Your task to perform on an android device: Search for dell alienware on target.com, select the first entry, add it to the cart, then select checkout. Image 0: 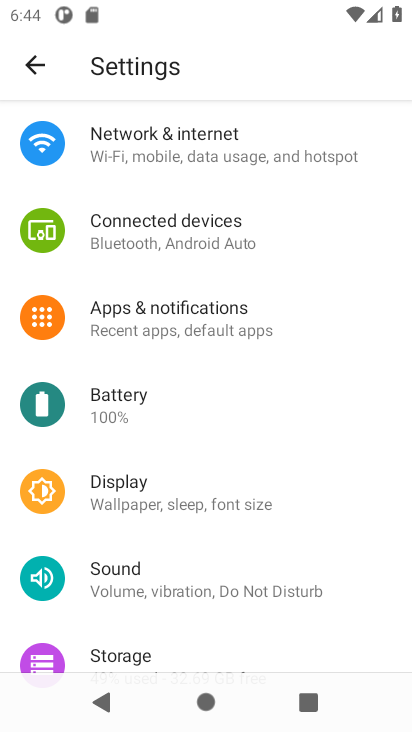
Step 0: press home button
Your task to perform on an android device: Search for dell alienware on target.com, select the first entry, add it to the cart, then select checkout. Image 1: 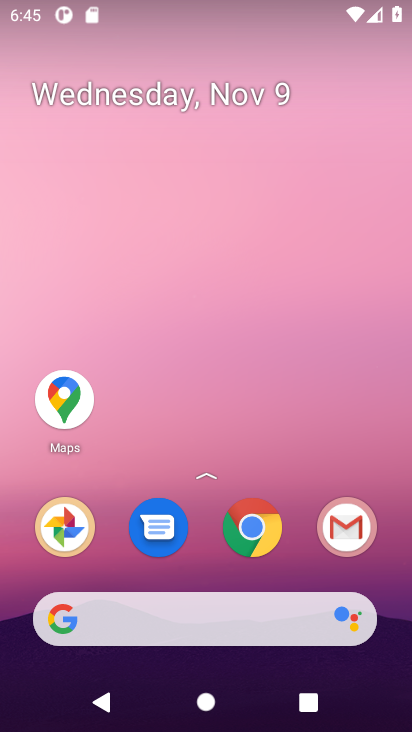
Step 1: click (250, 518)
Your task to perform on an android device: Search for dell alienware on target.com, select the first entry, add it to the cart, then select checkout. Image 2: 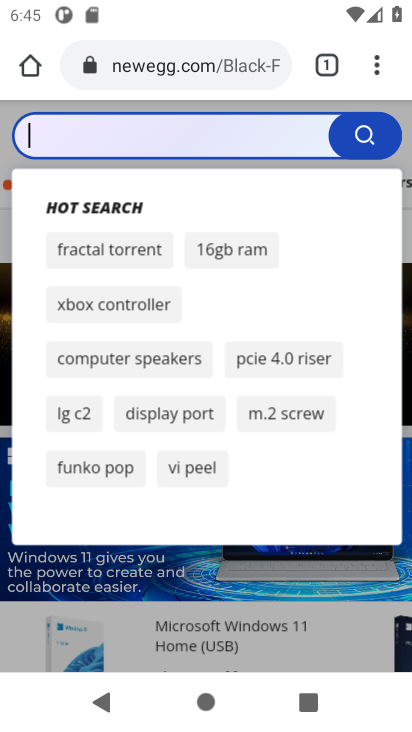
Step 2: click (155, 63)
Your task to perform on an android device: Search for dell alienware on target.com, select the first entry, add it to the cart, then select checkout. Image 3: 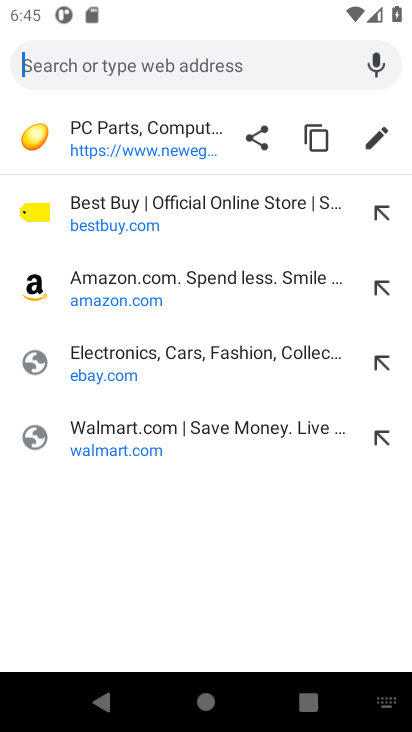
Step 3: type "target"
Your task to perform on an android device: Search for dell alienware on target.com, select the first entry, add it to the cart, then select checkout. Image 4: 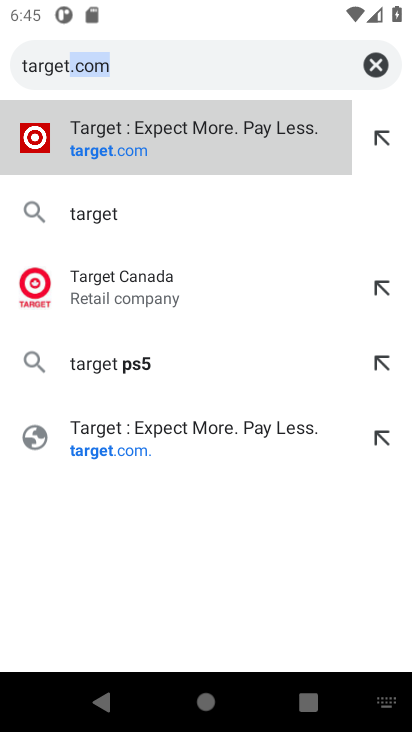
Step 4: click (82, 156)
Your task to perform on an android device: Search for dell alienware on target.com, select the first entry, add it to the cart, then select checkout. Image 5: 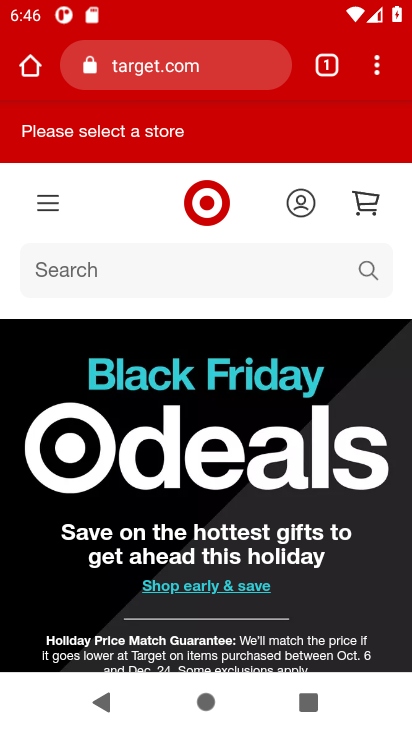
Step 5: click (96, 267)
Your task to perform on an android device: Search for dell alienware on target.com, select the first entry, add it to the cart, then select checkout. Image 6: 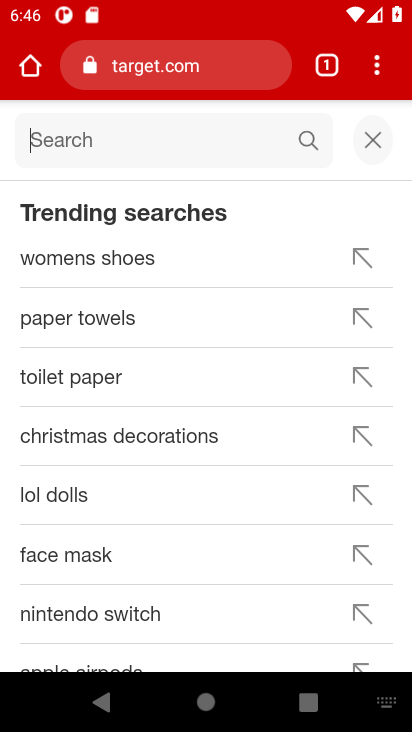
Step 6: type "dell alienware"
Your task to perform on an android device: Search for dell alienware on target.com, select the first entry, add it to the cart, then select checkout. Image 7: 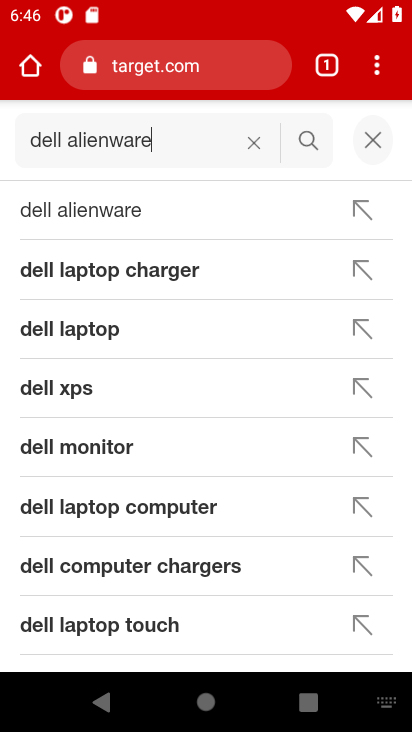
Step 7: click (119, 223)
Your task to perform on an android device: Search for dell alienware on target.com, select the first entry, add it to the cart, then select checkout. Image 8: 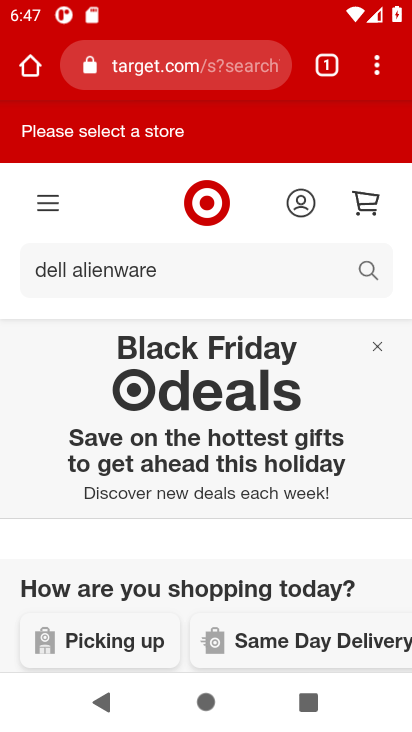
Step 8: click (370, 270)
Your task to perform on an android device: Search for dell alienware on target.com, select the first entry, add it to the cart, then select checkout. Image 9: 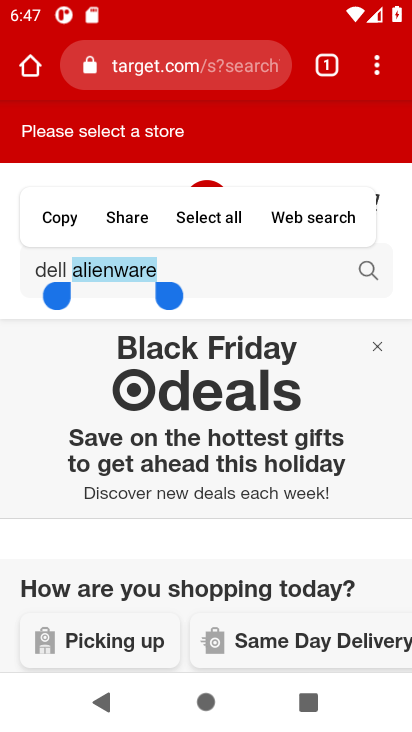
Step 9: click (367, 273)
Your task to perform on an android device: Search for dell alienware on target.com, select the first entry, add it to the cart, then select checkout. Image 10: 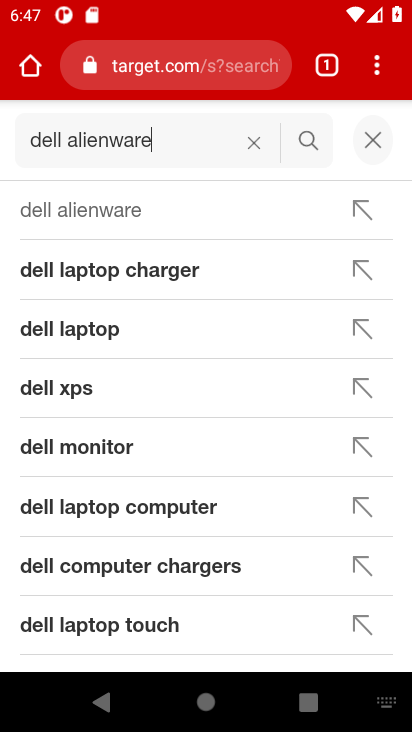
Step 10: click (70, 220)
Your task to perform on an android device: Search for dell alienware on target.com, select the first entry, add it to the cart, then select checkout. Image 11: 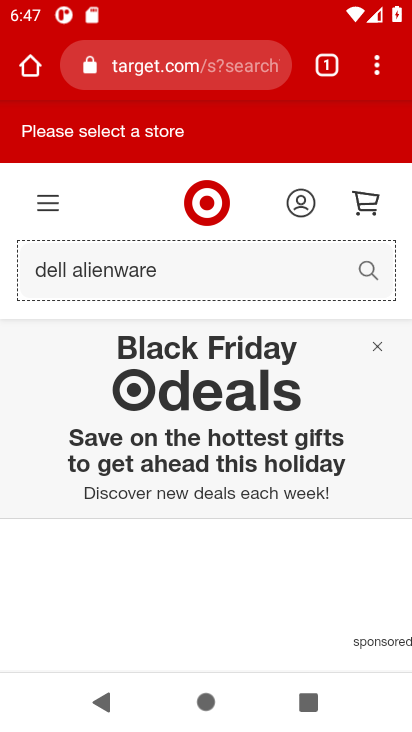
Step 11: drag from (224, 568) to (207, 310)
Your task to perform on an android device: Search for dell alienware on target.com, select the first entry, add it to the cart, then select checkout. Image 12: 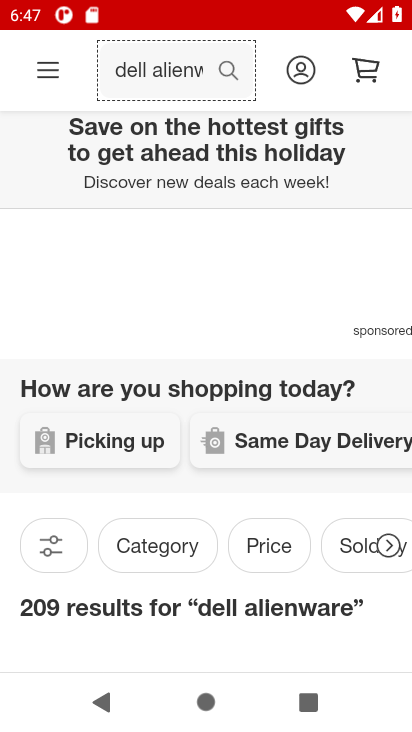
Step 12: drag from (219, 615) to (197, 176)
Your task to perform on an android device: Search for dell alienware on target.com, select the first entry, add it to the cart, then select checkout. Image 13: 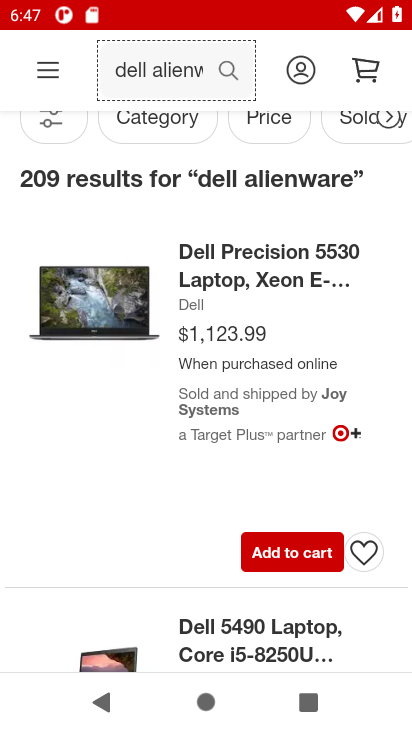
Step 13: drag from (174, 599) to (160, 185)
Your task to perform on an android device: Search for dell alienware on target.com, select the first entry, add it to the cart, then select checkout. Image 14: 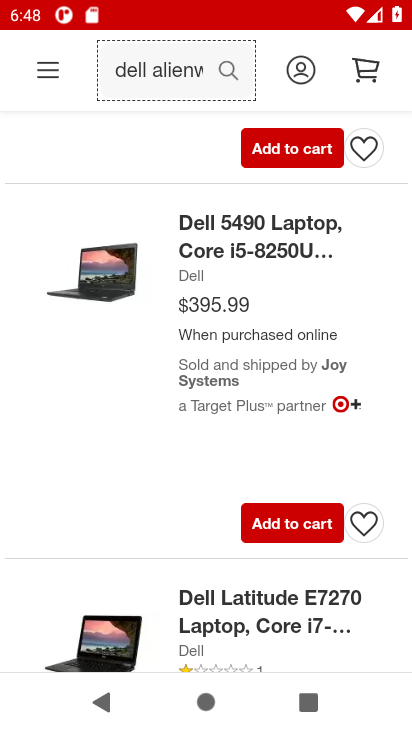
Step 14: drag from (162, 643) to (155, 300)
Your task to perform on an android device: Search for dell alienware on target.com, select the first entry, add it to the cart, then select checkout. Image 15: 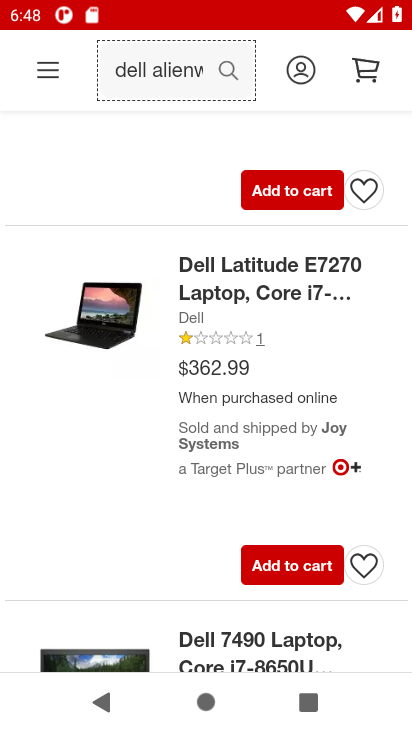
Step 15: click (192, 279)
Your task to perform on an android device: Search for dell alienware on target.com, select the first entry, add it to the cart, then select checkout. Image 16: 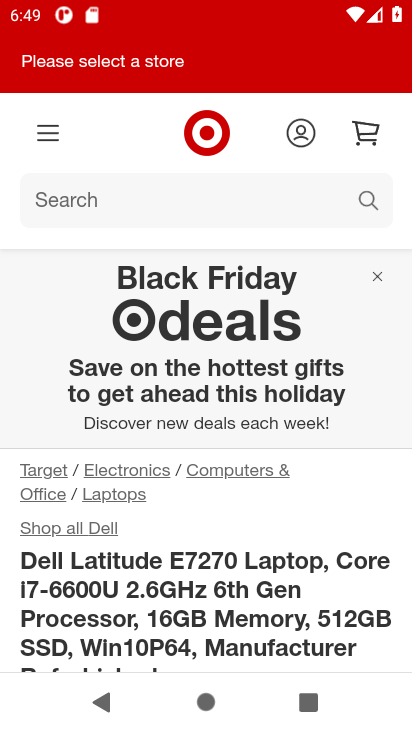
Step 16: drag from (210, 603) to (190, 284)
Your task to perform on an android device: Search for dell alienware on target.com, select the first entry, add it to the cart, then select checkout. Image 17: 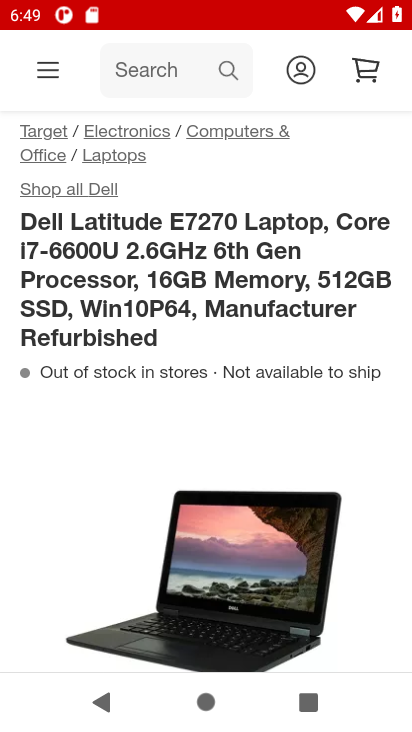
Step 17: drag from (130, 529) to (130, 92)
Your task to perform on an android device: Search for dell alienware on target.com, select the first entry, add it to the cart, then select checkout. Image 18: 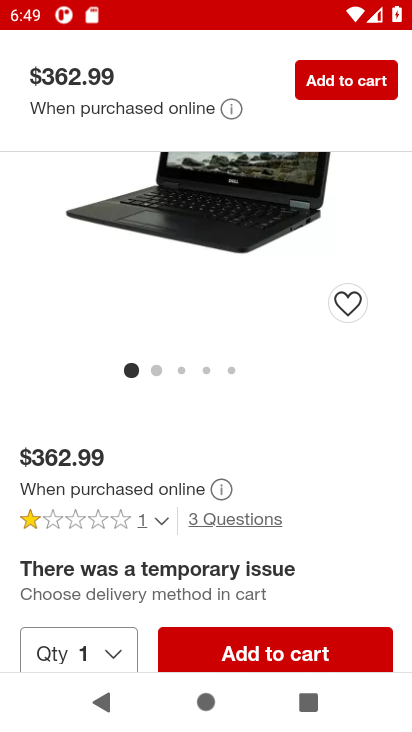
Step 18: click (265, 641)
Your task to perform on an android device: Search for dell alienware on target.com, select the first entry, add it to the cart, then select checkout. Image 19: 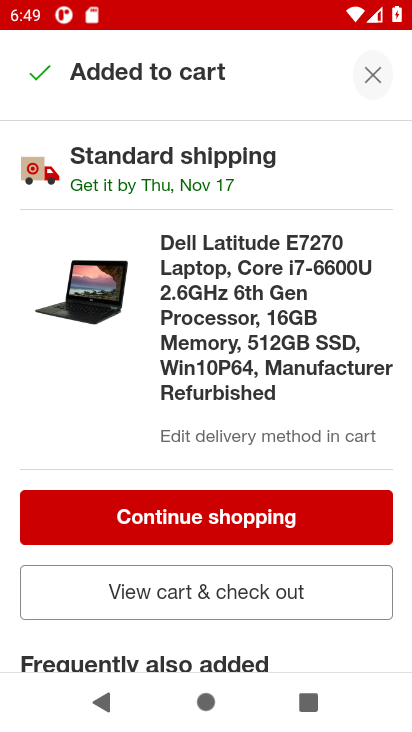
Step 19: click (209, 591)
Your task to perform on an android device: Search for dell alienware on target.com, select the first entry, add it to the cart, then select checkout. Image 20: 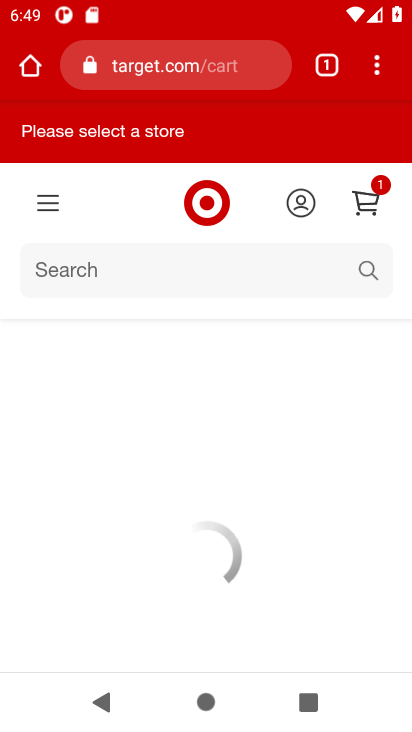
Step 20: click (374, 201)
Your task to perform on an android device: Search for dell alienware on target.com, select the first entry, add it to the cart, then select checkout. Image 21: 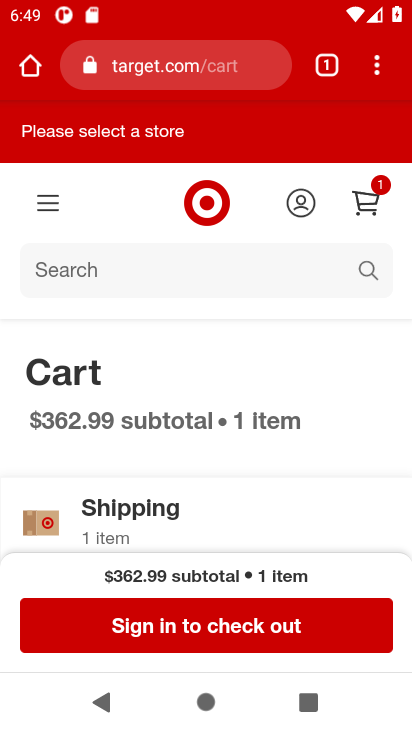
Step 21: click (193, 617)
Your task to perform on an android device: Search for dell alienware on target.com, select the first entry, add it to the cart, then select checkout. Image 22: 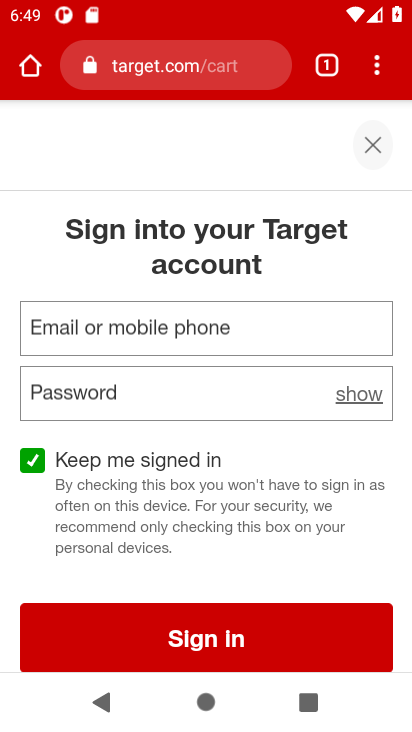
Step 22: task complete